Your task to perform on an android device: Open sound settings Image 0: 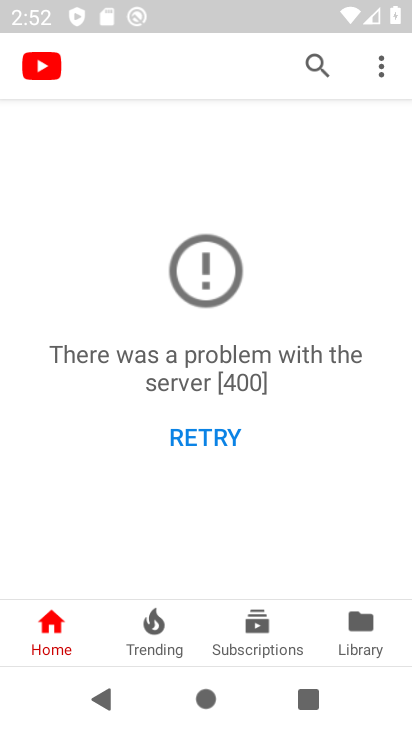
Step 0: press home button
Your task to perform on an android device: Open sound settings Image 1: 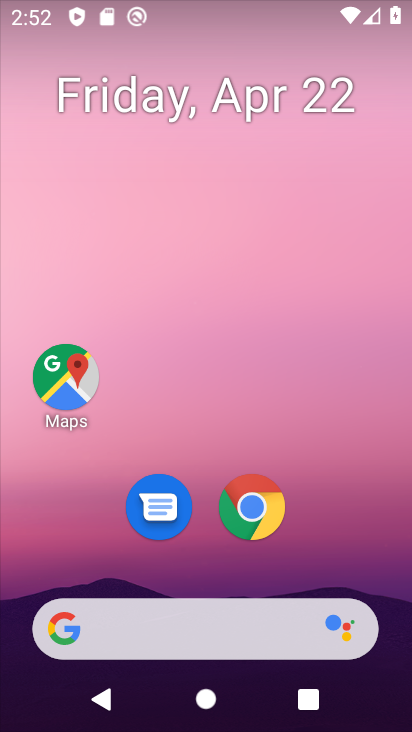
Step 1: drag from (352, 528) to (403, 126)
Your task to perform on an android device: Open sound settings Image 2: 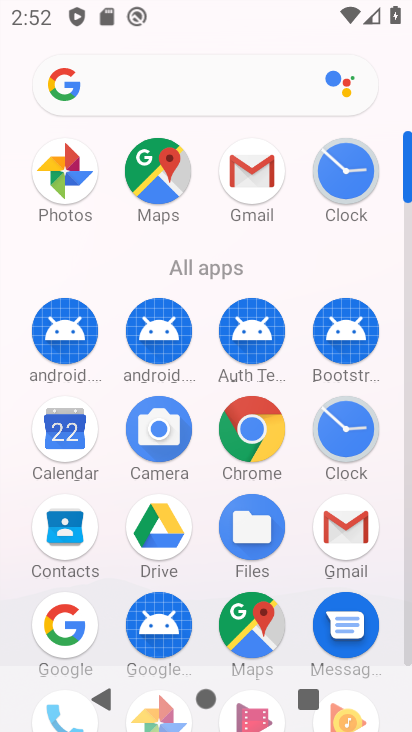
Step 2: drag from (218, 598) to (230, 210)
Your task to perform on an android device: Open sound settings Image 3: 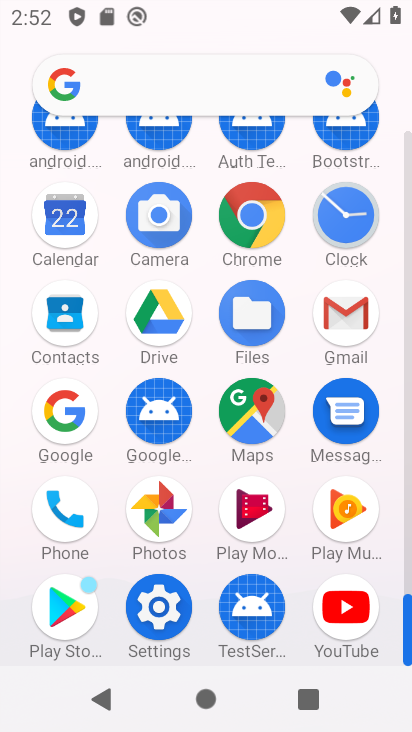
Step 3: click (154, 603)
Your task to perform on an android device: Open sound settings Image 4: 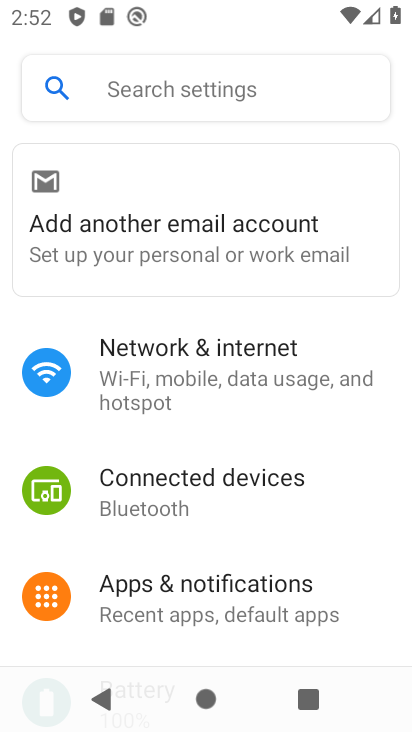
Step 4: drag from (216, 572) to (233, 240)
Your task to perform on an android device: Open sound settings Image 5: 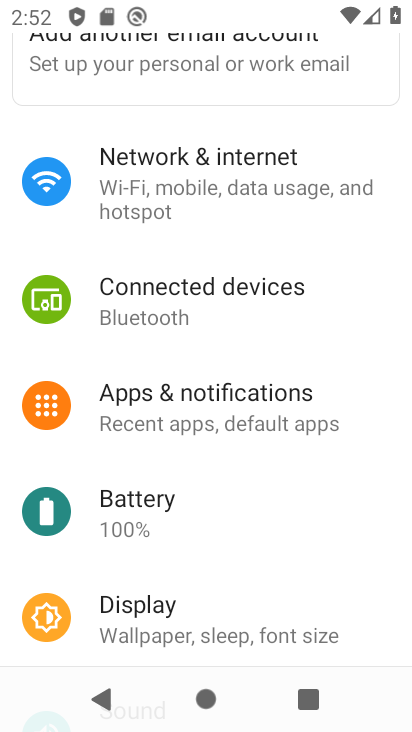
Step 5: drag from (205, 638) to (250, 291)
Your task to perform on an android device: Open sound settings Image 6: 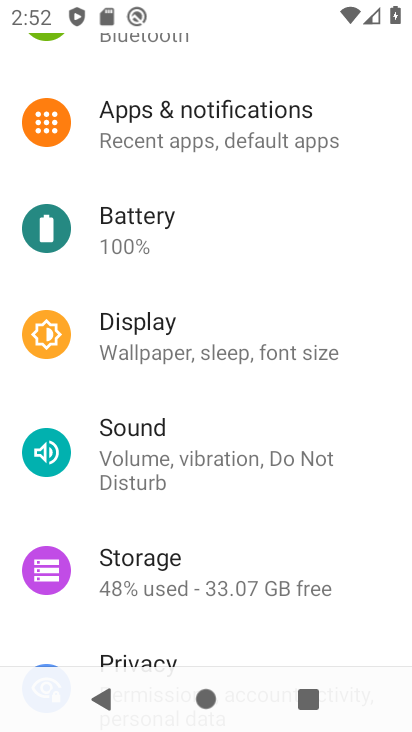
Step 6: click (217, 465)
Your task to perform on an android device: Open sound settings Image 7: 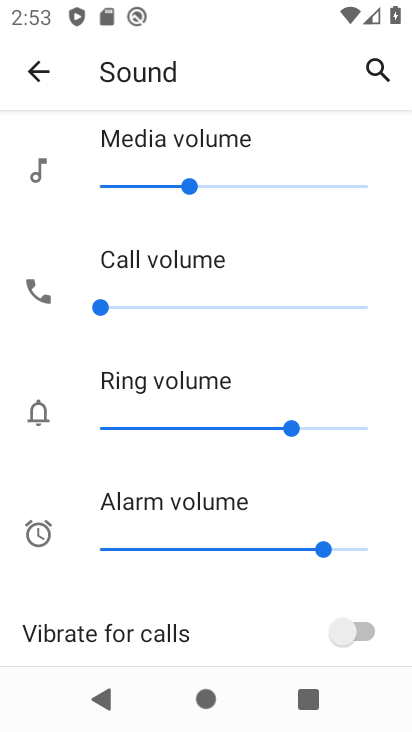
Step 7: task complete